Your task to perform on an android device: change notifications settings Image 0: 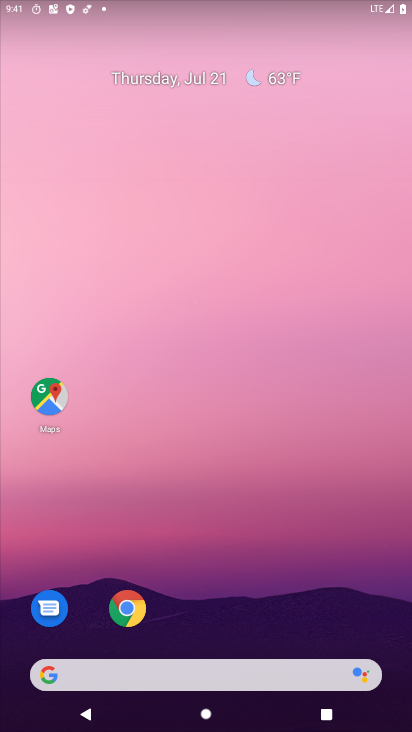
Step 0: drag from (206, 620) to (269, 46)
Your task to perform on an android device: change notifications settings Image 1: 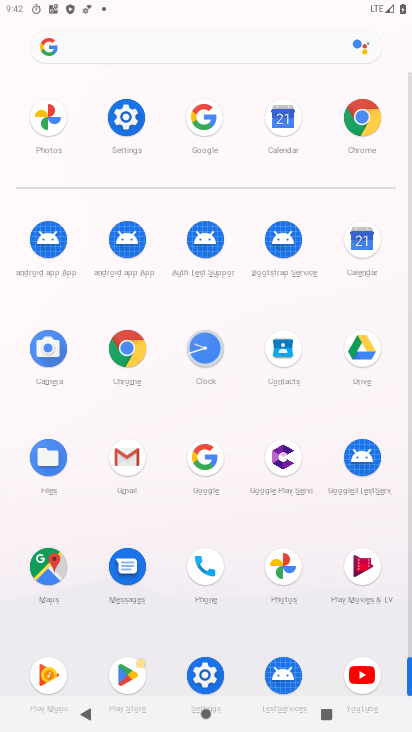
Step 1: click (129, 123)
Your task to perform on an android device: change notifications settings Image 2: 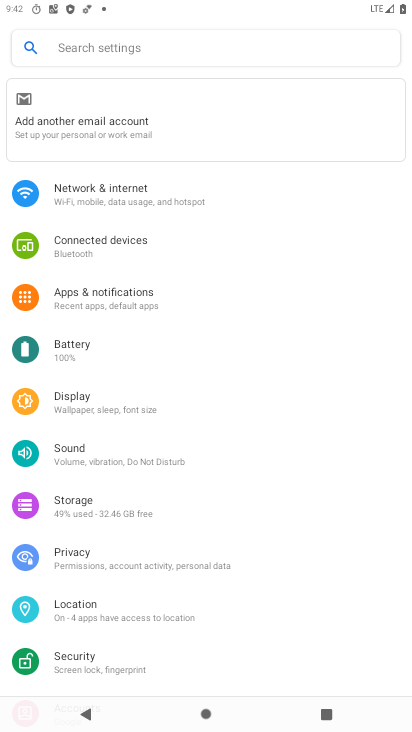
Step 2: click (114, 290)
Your task to perform on an android device: change notifications settings Image 3: 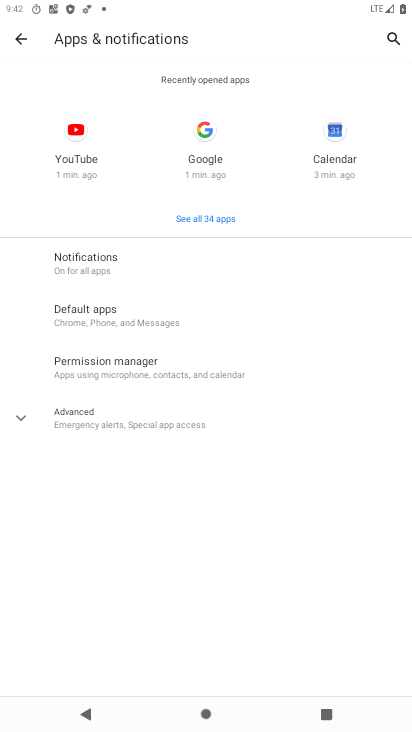
Step 3: click (105, 273)
Your task to perform on an android device: change notifications settings Image 4: 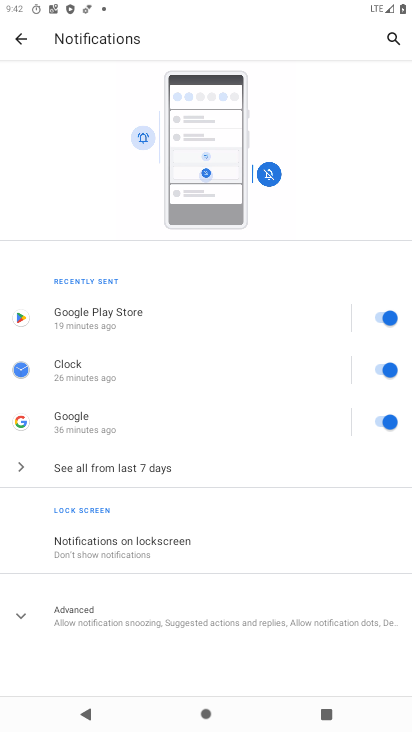
Step 4: click (390, 318)
Your task to perform on an android device: change notifications settings Image 5: 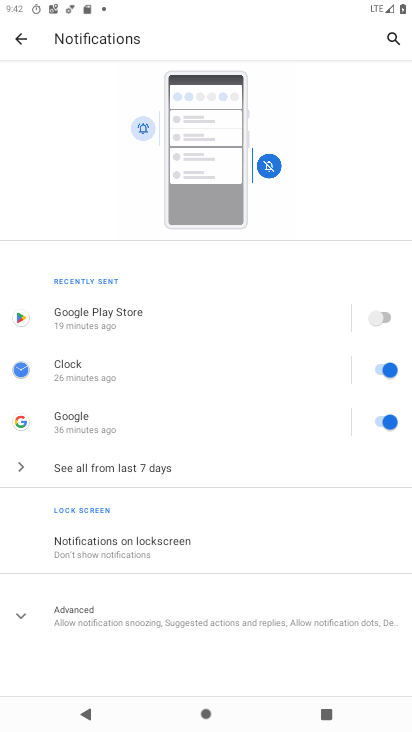
Step 5: task complete